Your task to perform on an android device: Show me recent news Image 0: 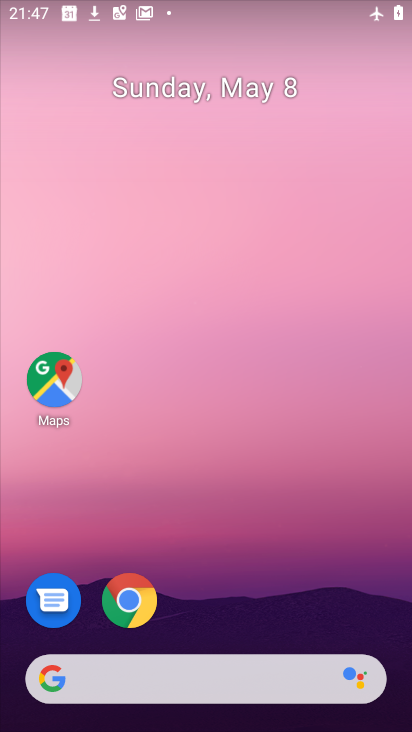
Step 0: drag from (243, 704) to (209, 337)
Your task to perform on an android device: Show me recent news Image 1: 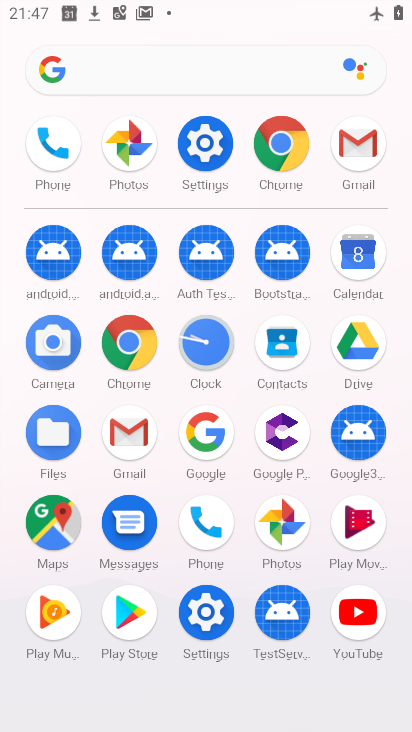
Step 1: click (104, 71)
Your task to perform on an android device: Show me recent news Image 2: 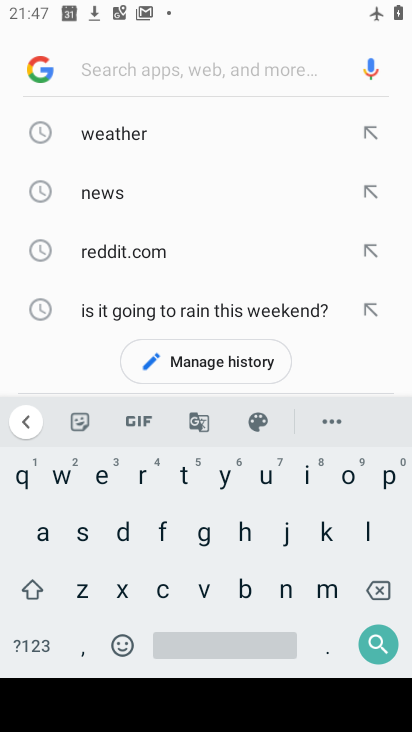
Step 2: click (134, 474)
Your task to perform on an android device: Show me recent news Image 3: 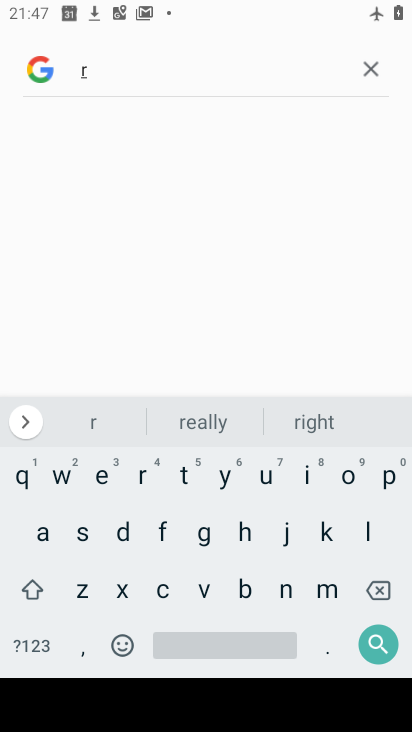
Step 3: click (100, 480)
Your task to perform on an android device: Show me recent news Image 4: 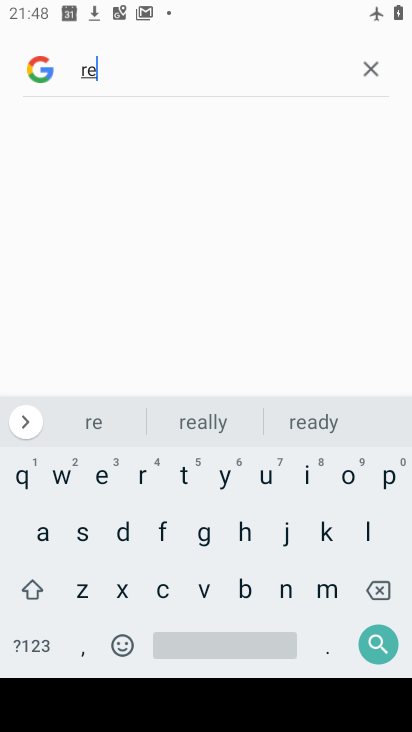
Step 4: press home button
Your task to perform on an android device: Show me recent news Image 5: 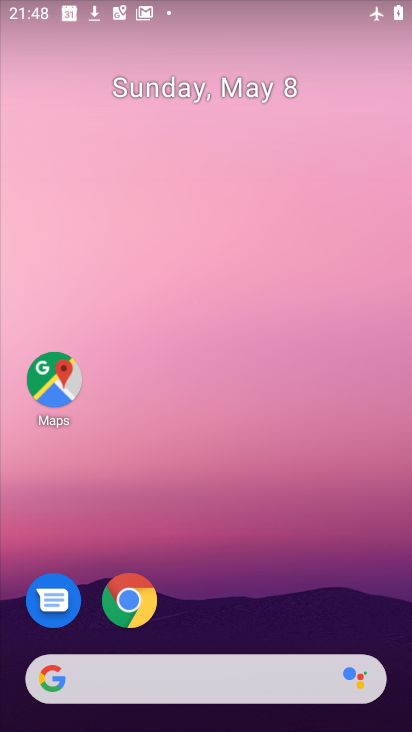
Step 5: drag from (334, 695) to (280, 283)
Your task to perform on an android device: Show me recent news Image 6: 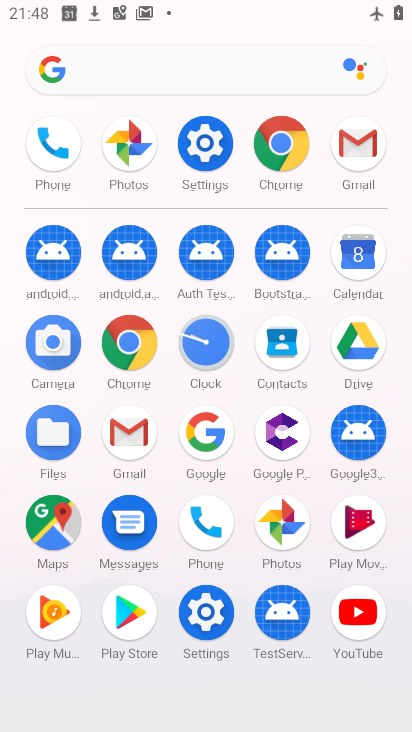
Step 6: click (211, 137)
Your task to perform on an android device: Show me recent news Image 7: 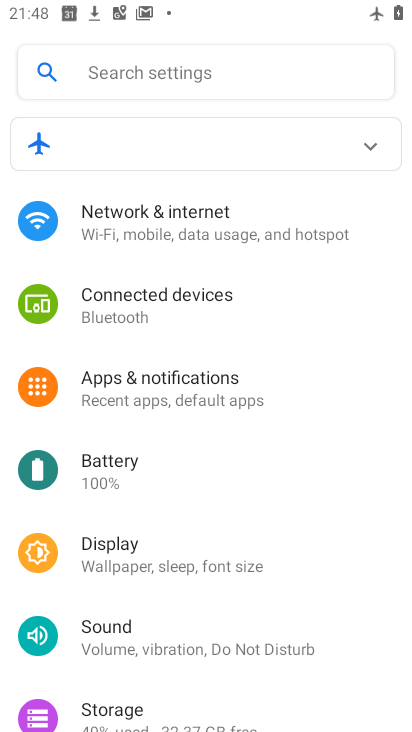
Step 7: click (362, 154)
Your task to perform on an android device: Show me recent news Image 8: 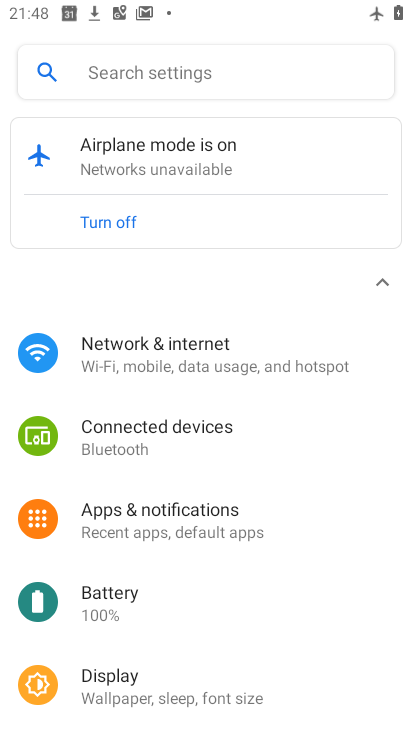
Step 8: click (164, 211)
Your task to perform on an android device: Show me recent news Image 9: 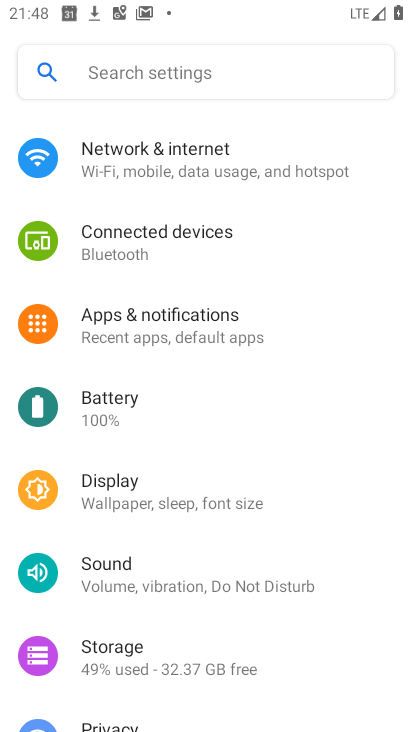
Step 9: press home button
Your task to perform on an android device: Show me recent news Image 10: 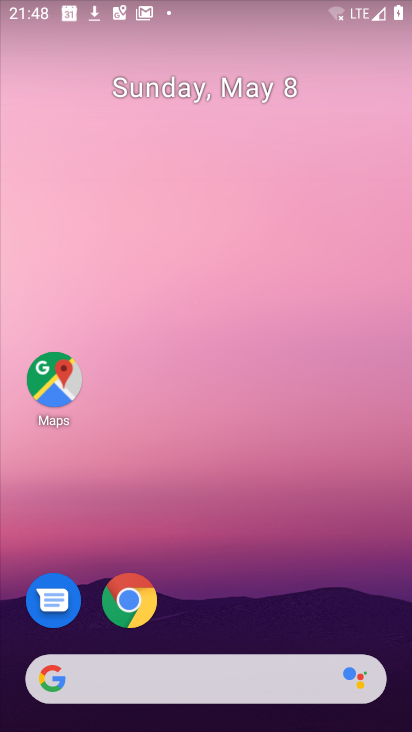
Step 10: drag from (253, 687) to (276, 335)
Your task to perform on an android device: Show me recent news Image 11: 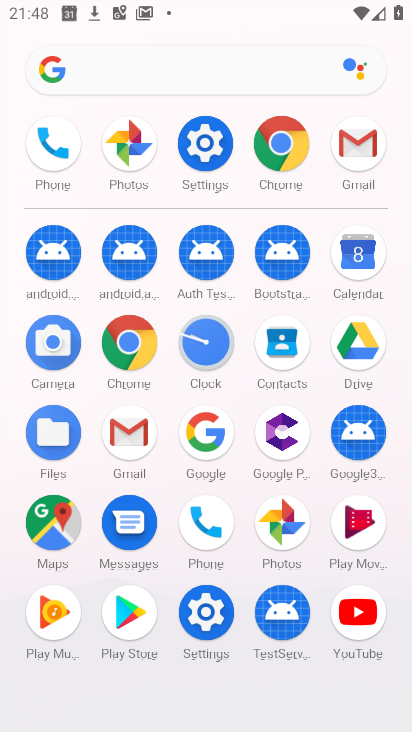
Step 11: click (144, 69)
Your task to perform on an android device: Show me recent news Image 12: 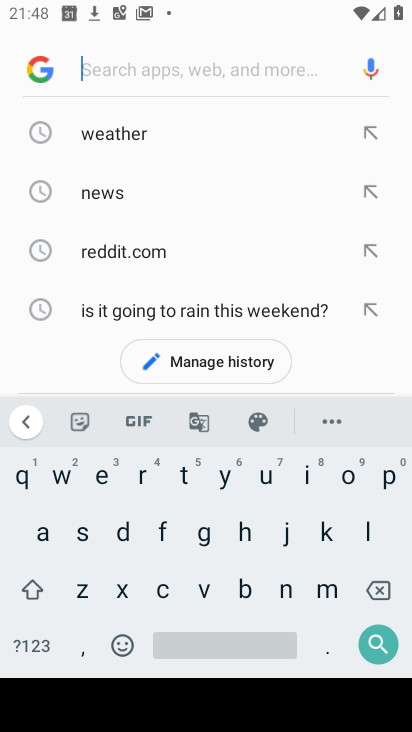
Step 12: click (138, 474)
Your task to perform on an android device: Show me recent news Image 13: 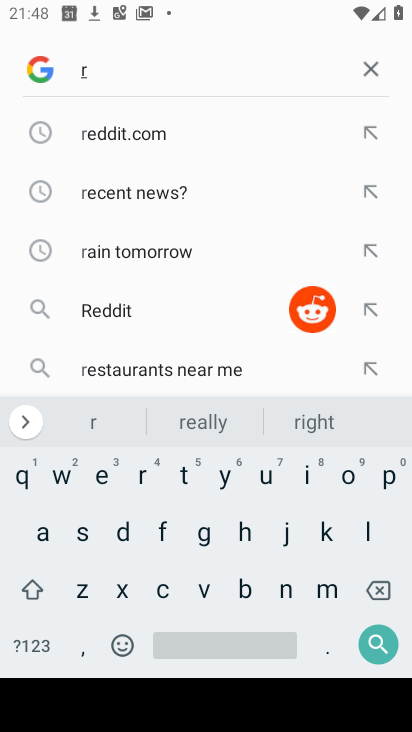
Step 13: click (103, 484)
Your task to perform on an android device: Show me recent news Image 14: 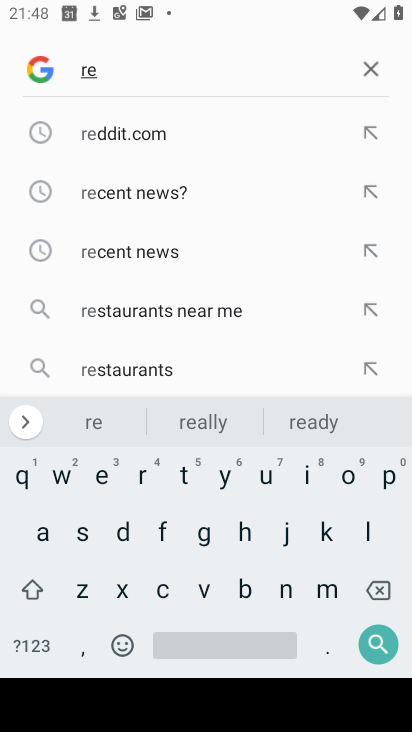
Step 14: click (168, 242)
Your task to perform on an android device: Show me recent news Image 15: 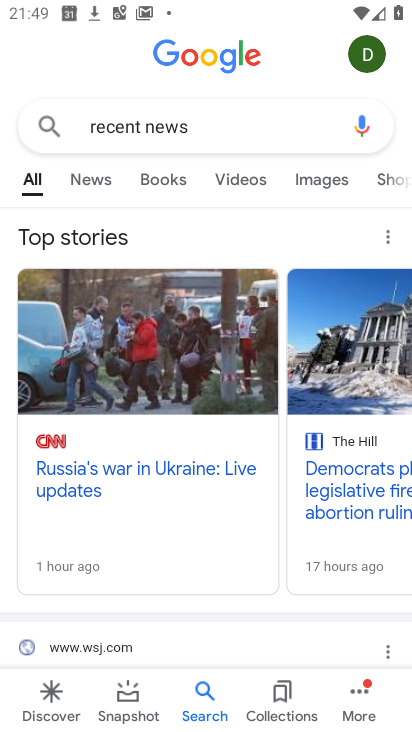
Step 15: task complete